Your task to perform on an android device: turn on javascript in the chrome app Image 0: 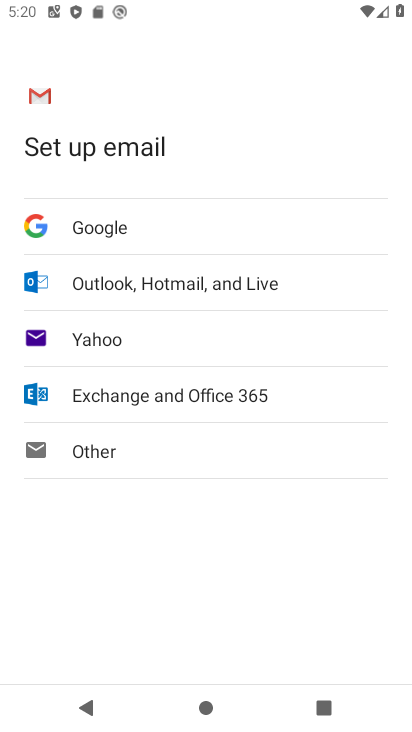
Step 0: press back button
Your task to perform on an android device: turn on javascript in the chrome app Image 1: 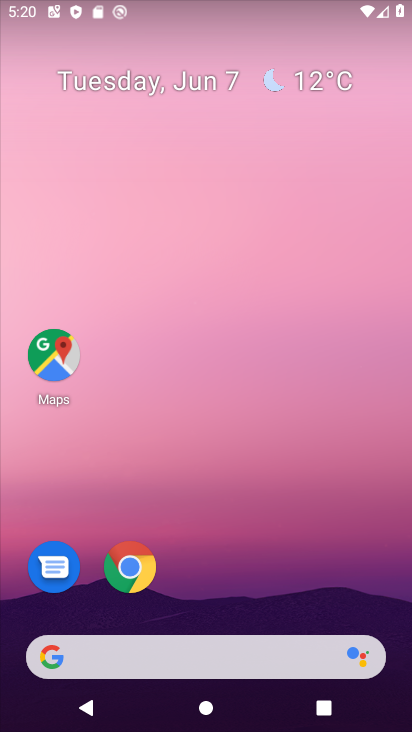
Step 1: drag from (251, 572) to (236, 20)
Your task to perform on an android device: turn on javascript in the chrome app Image 2: 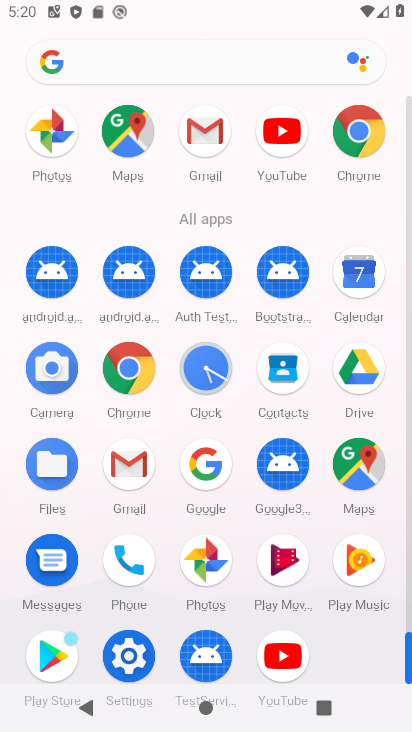
Step 2: click (127, 372)
Your task to perform on an android device: turn on javascript in the chrome app Image 3: 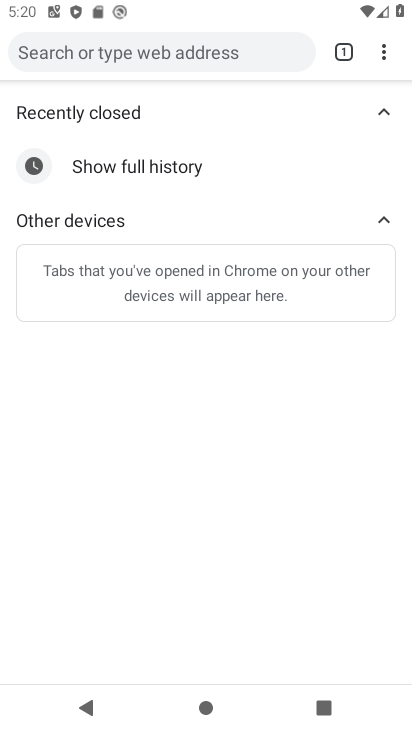
Step 3: drag from (385, 60) to (240, 492)
Your task to perform on an android device: turn on javascript in the chrome app Image 4: 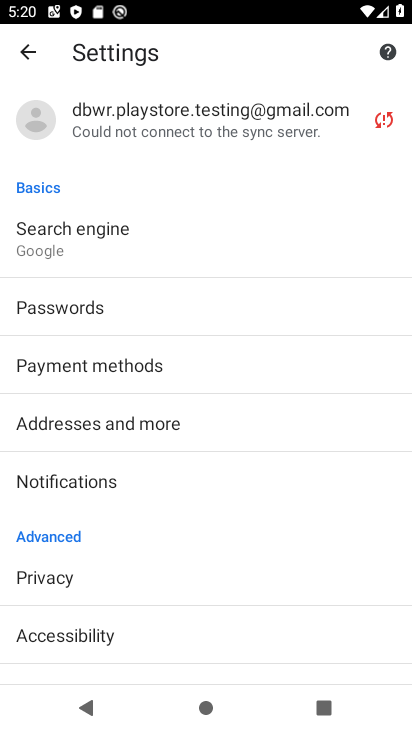
Step 4: drag from (248, 549) to (251, 146)
Your task to perform on an android device: turn on javascript in the chrome app Image 5: 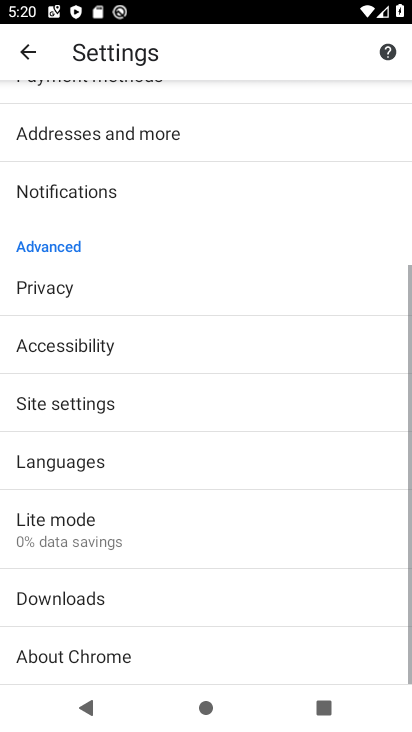
Step 5: click (97, 387)
Your task to perform on an android device: turn on javascript in the chrome app Image 6: 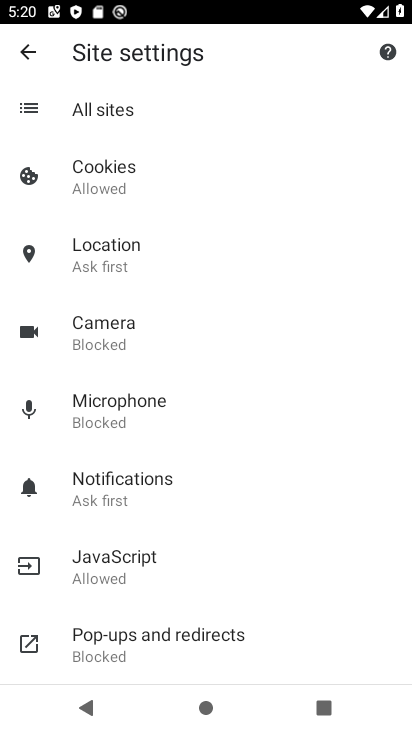
Step 6: click (117, 571)
Your task to perform on an android device: turn on javascript in the chrome app Image 7: 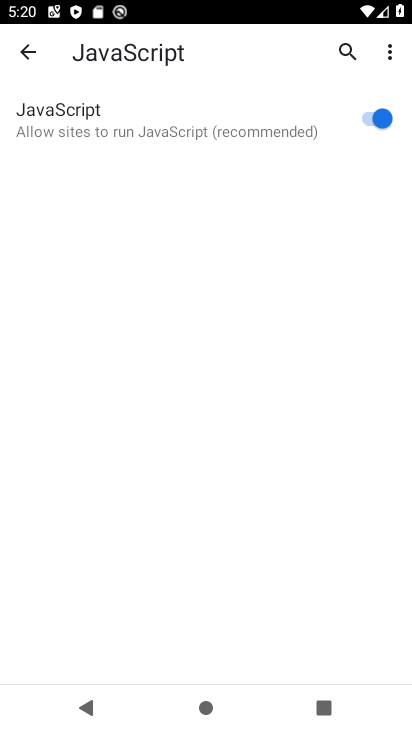
Step 7: task complete